Your task to perform on an android device: see sites visited before in the chrome app Image 0: 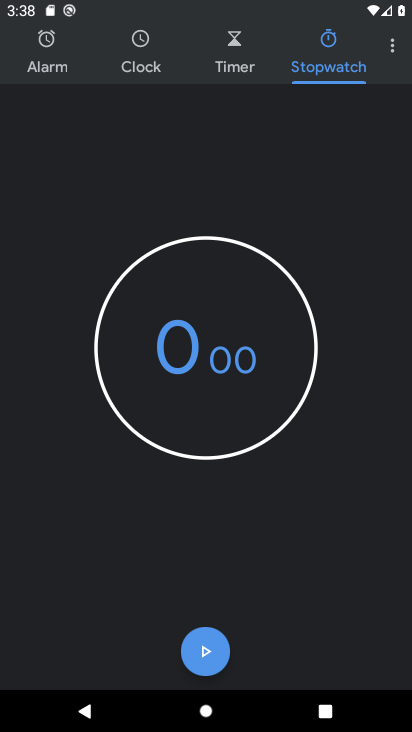
Step 0: press home button
Your task to perform on an android device: see sites visited before in the chrome app Image 1: 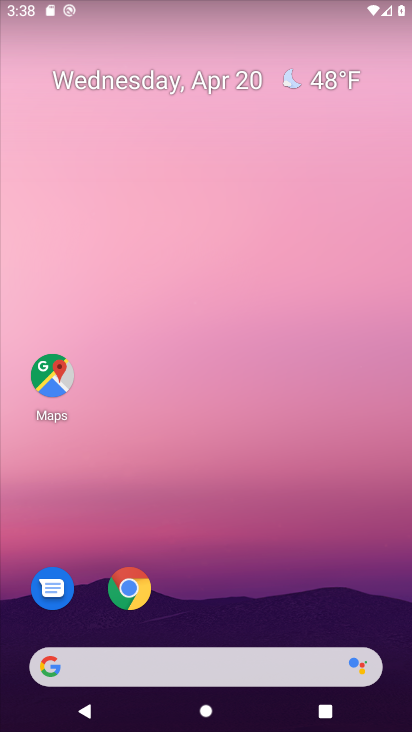
Step 1: drag from (357, 599) to (244, 69)
Your task to perform on an android device: see sites visited before in the chrome app Image 2: 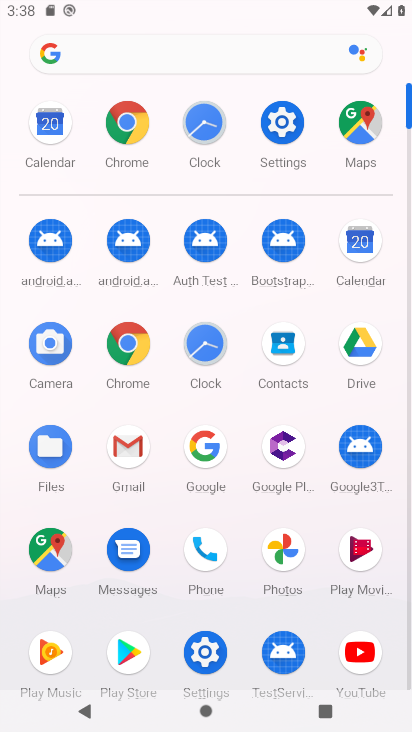
Step 2: click (124, 337)
Your task to perform on an android device: see sites visited before in the chrome app Image 3: 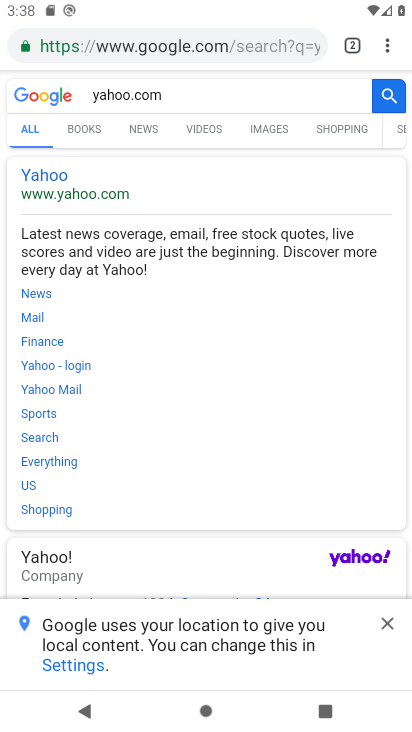
Step 3: click (388, 41)
Your task to perform on an android device: see sites visited before in the chrome app Image 4: 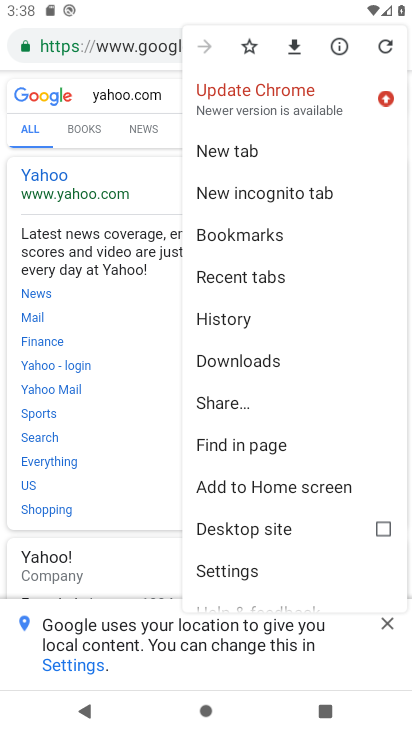
Step 4: click (244, 315)
Your task to perform on an android device: see sites visited before in the chrome app Image 5: 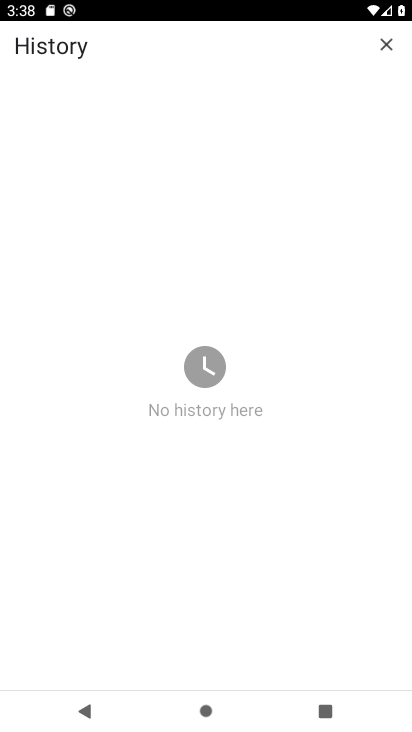
Step 5: task complete